Your task to perform on an android device: uninstall "Mercado Libre" Image 0: 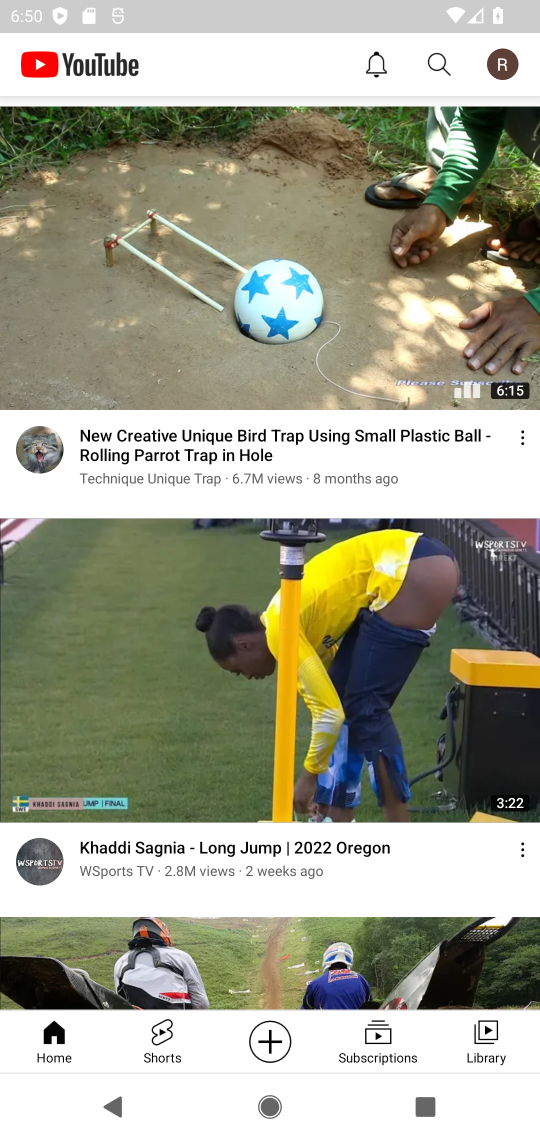
Step 0: press home button
Your task to perform on an android device: uninstall "Mercado Libre" Image 1: 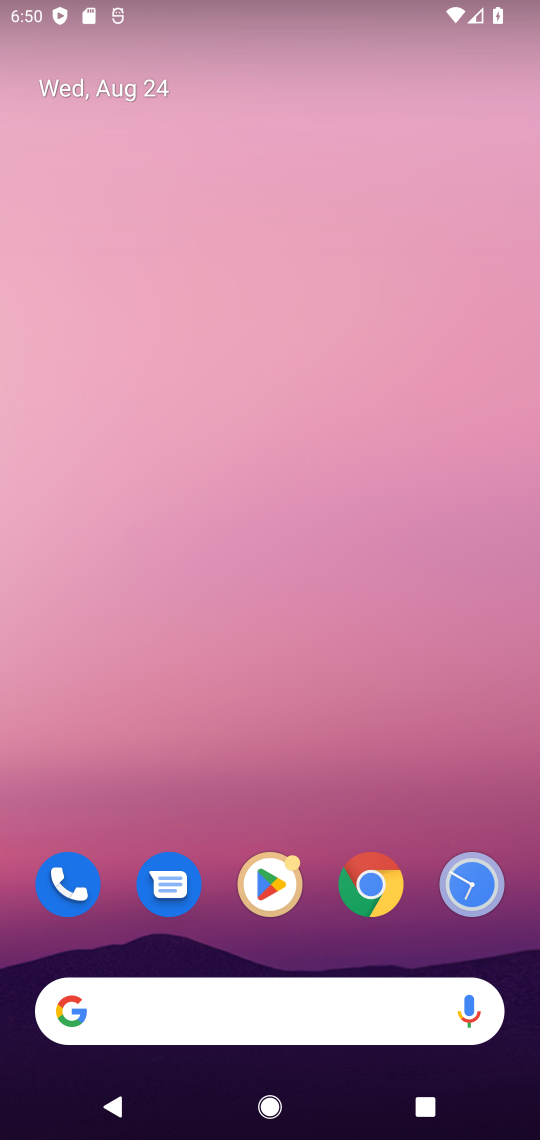
Step 1: click (273, 910)
Your task to perform on an android device: uninstall "Mercado Libre" Image 2: 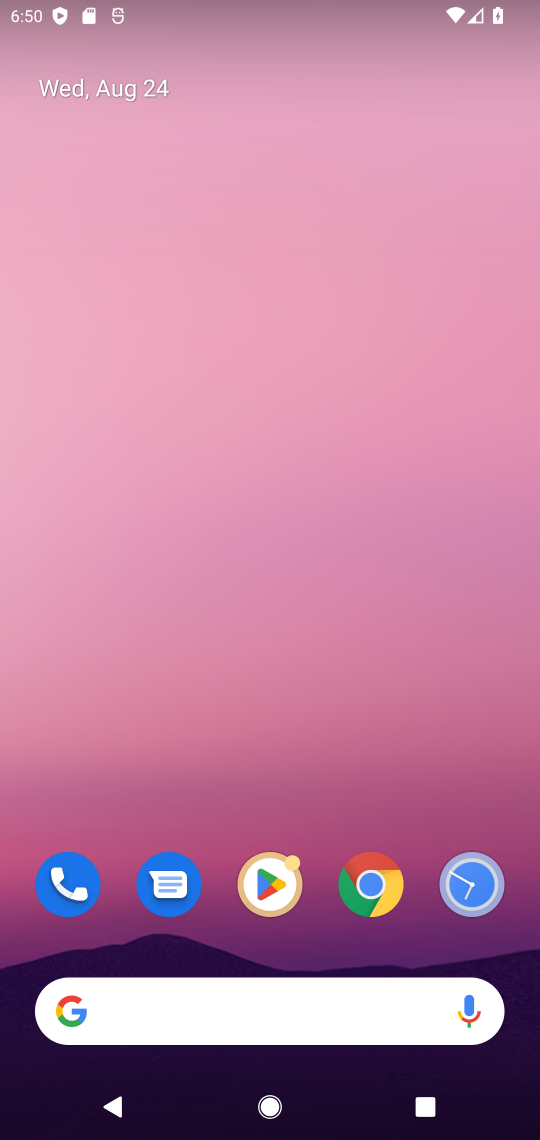
Step 2: click (268, 879)
Your task to perform on an android device: uninstall "Mercado Libre" Image 3: 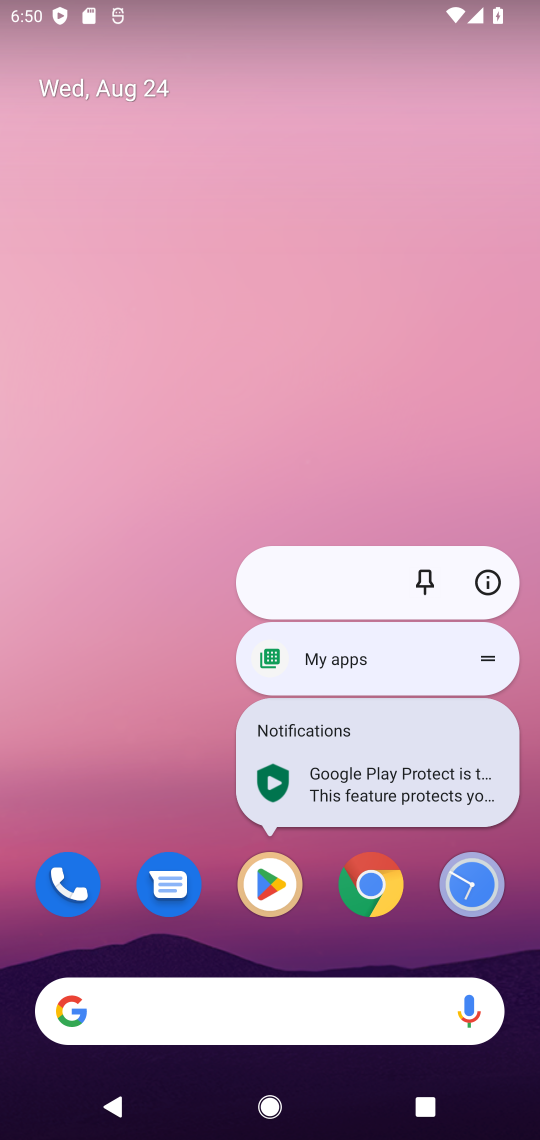
Step 3: click (272, 901)
Your task to perform on an android device: uninstall "Mercado Libre" Image 4: 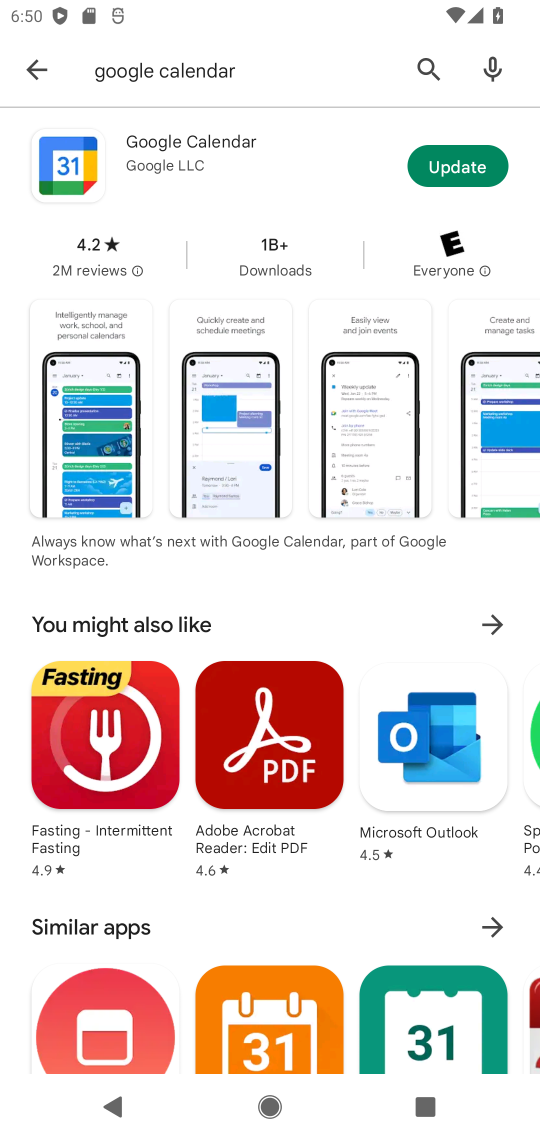
Step 4: click (420, 62)
Your task to perform on an android device: uninstall "Mercado Libre" Image 5: 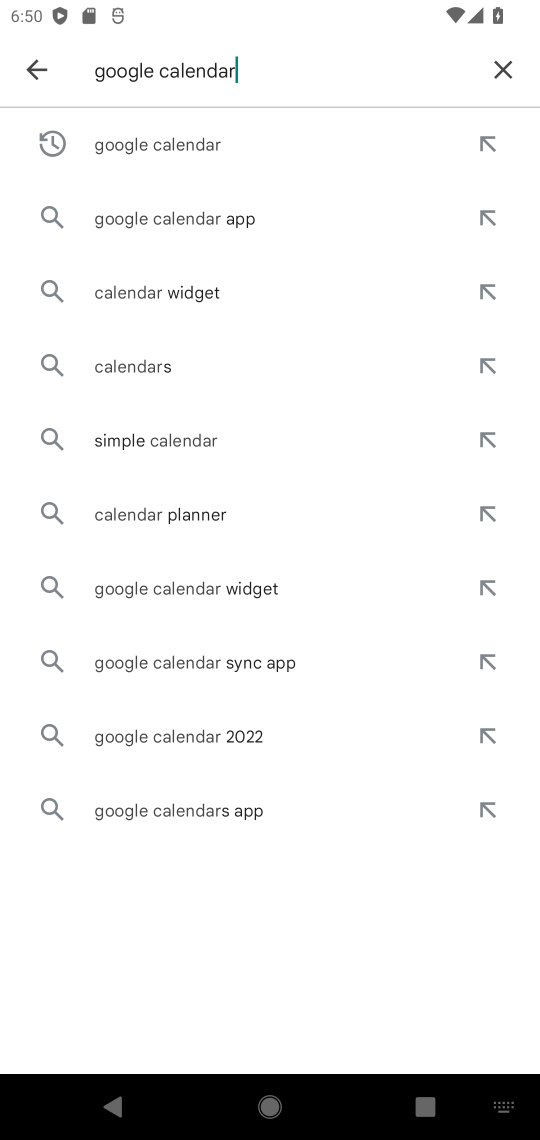
Step 5: click (504, 68)
Your task to perform on an android device: uninstall "Mercado Libre" Image 6: 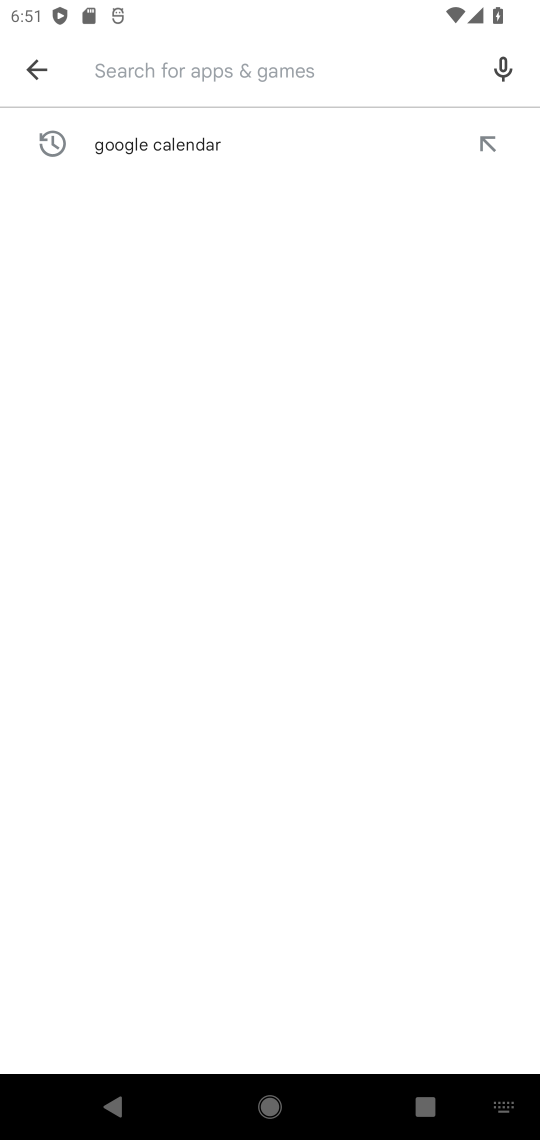
Step 6: type "Mercado Libre"
Your task to perform on an android device: uninstall "Mercado Libre" Image 7: 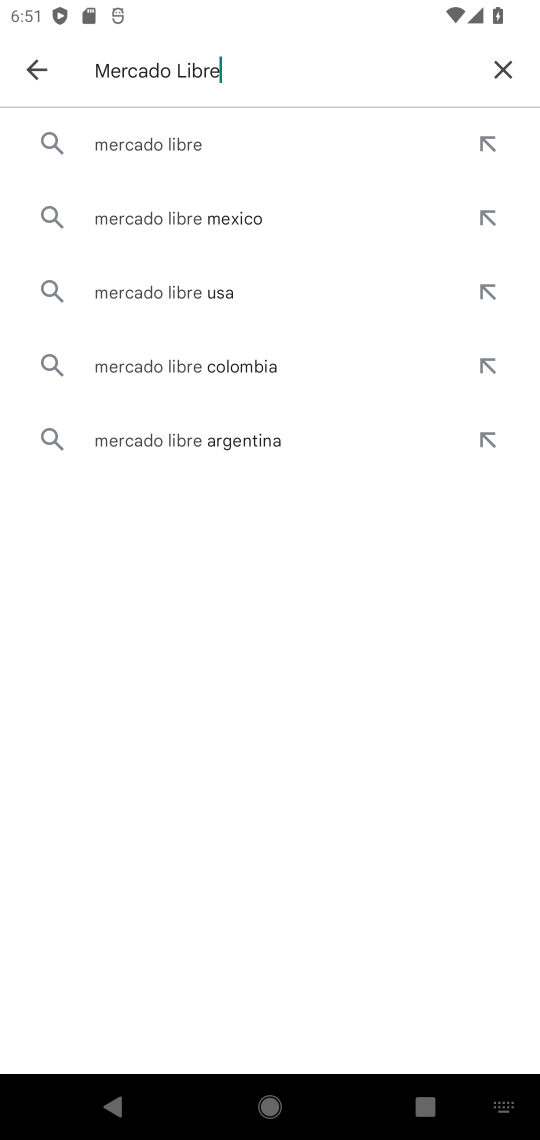
Step 7: click (167, 133)
Your task to perform on an android device: uninstall "Mercado Libre" Image 8: 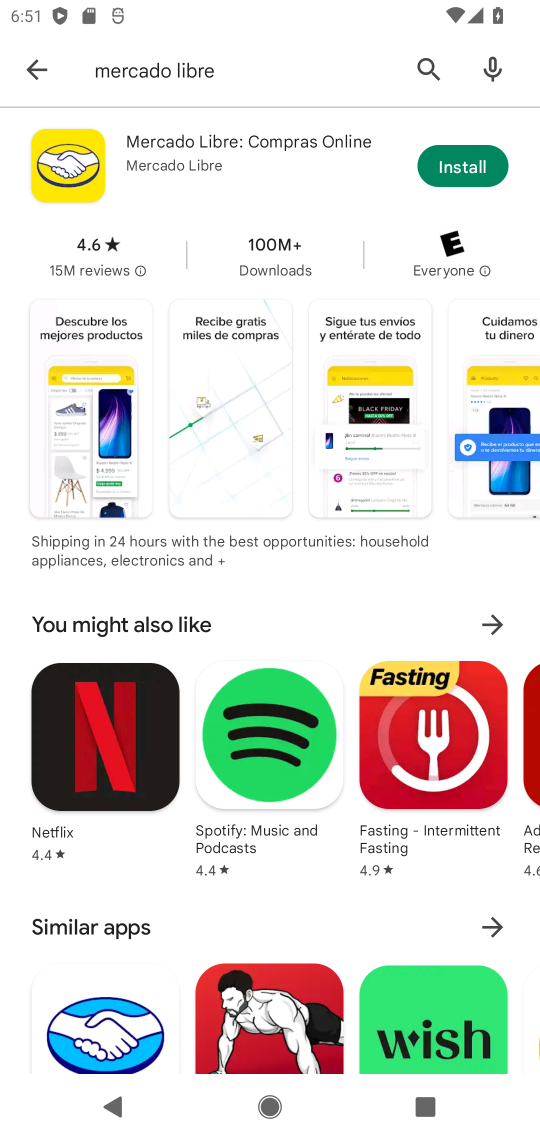
Step 8: task complete